Your task to perform on an android device: Go to settings Image 0: 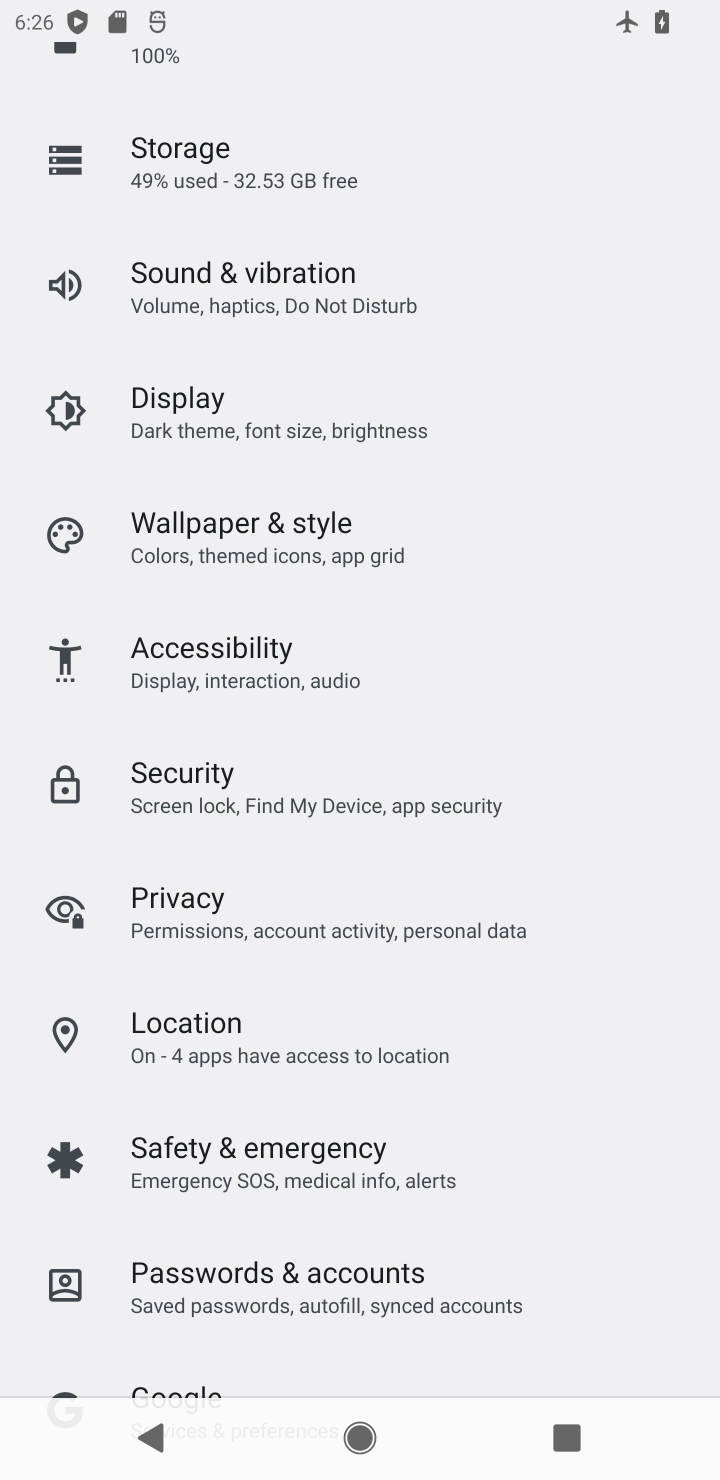
Step 0: drag from (98, 940) to (101, 233)
Your task to perform on an android device: Go to settings Image 1: 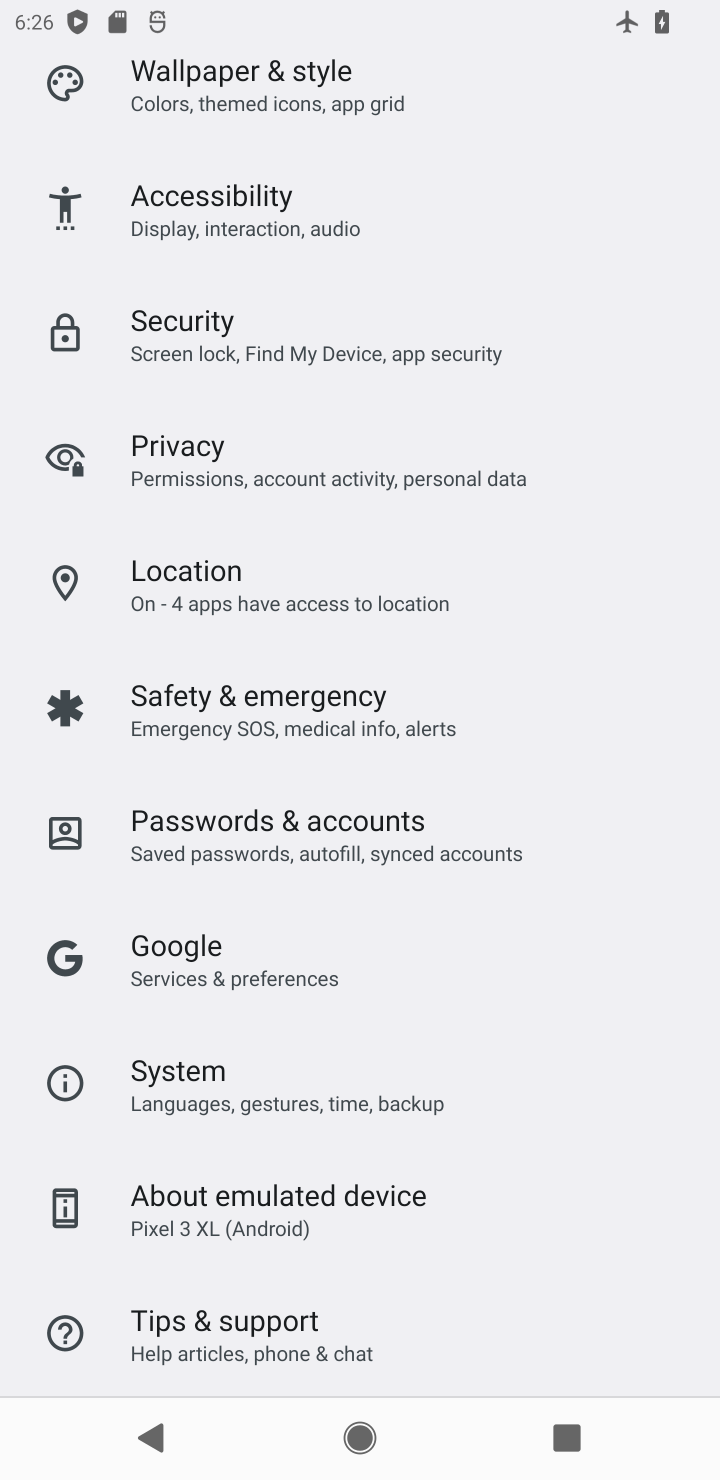
Step 1: task complete